Your task to perform on an android device: Go to wifi settings Image 0: 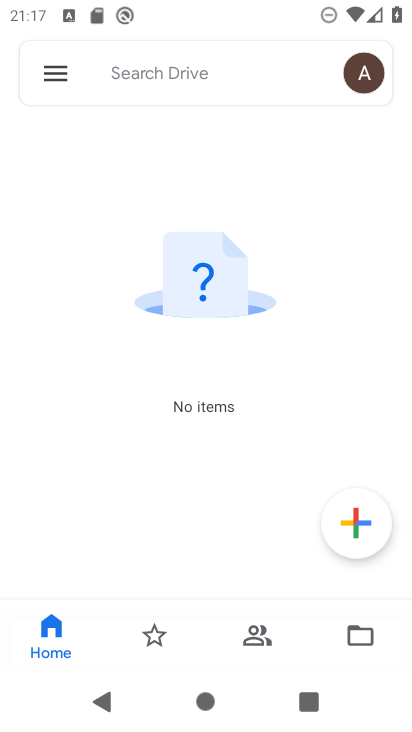
Step 0: press home button
Your task to perform on an android device: Go to wifi settings Image 1: 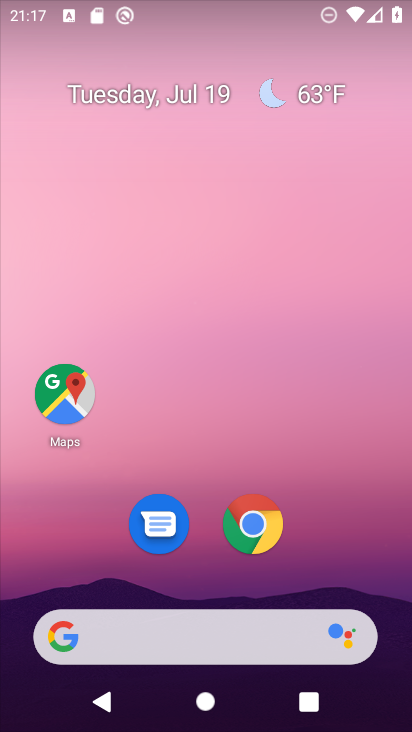
Step 1: drag from (312, 548) to (330, 25)
Your task to perform on an android device: Go to wifi settings Image 2: 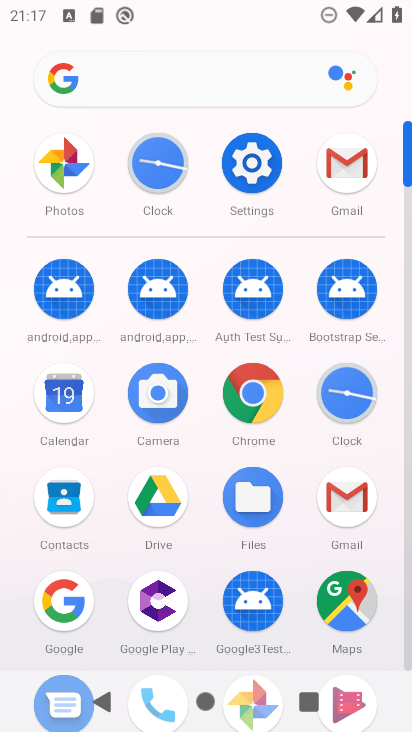
Step 2: click (256, 161)
Your task to perform on an android device: Go to wifi settings Image 3: 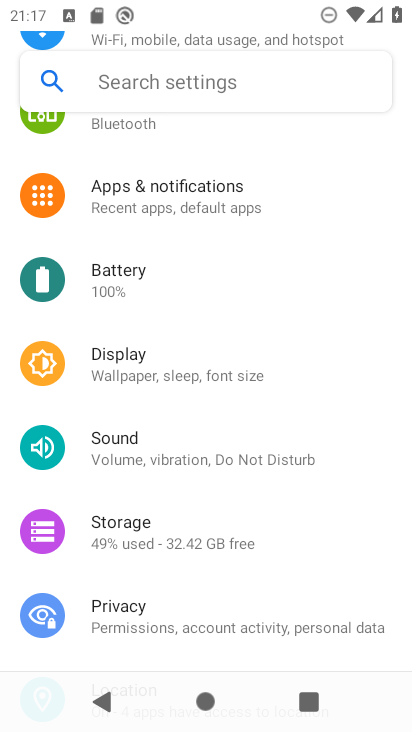
Step 3: drag from (202, 294) to (190, 589)
Your task to perform on an android device: Go to wifi settings Image 4: 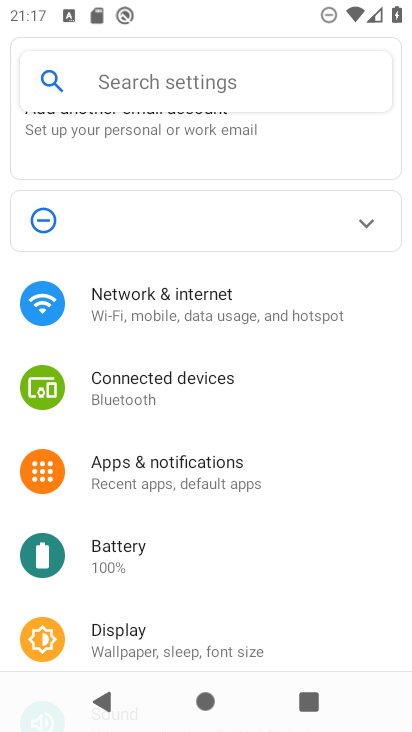
Step 4: click (254, 312)
Your task to perform on an android device: Go to wifi settings Image 5: 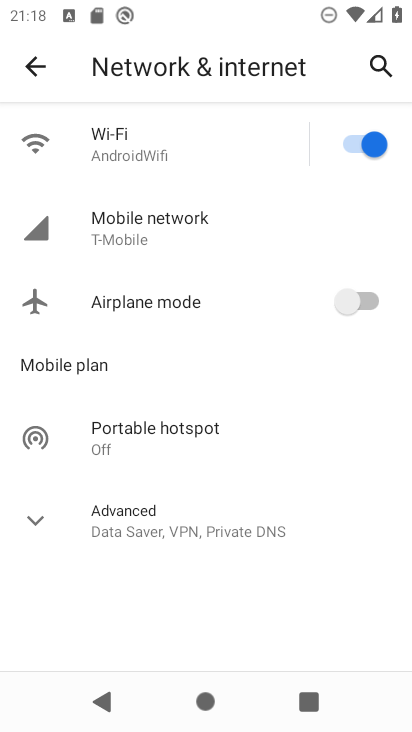
Step 5: click (159, 156)
Your task to perform on an android device: Go to wifi settings Image 6: 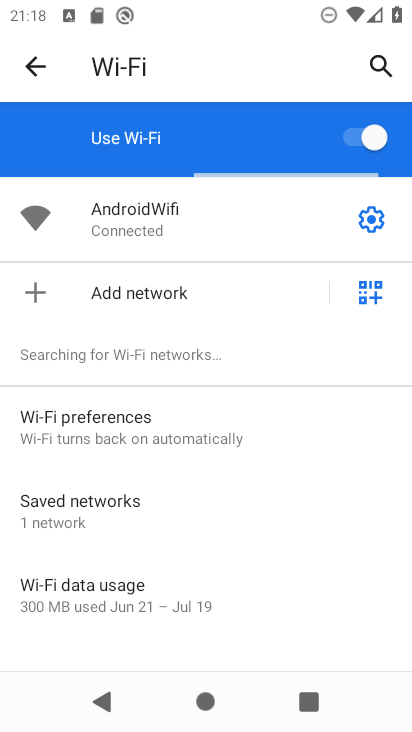
Step 6: task complete